Your task to perform on an android device: see tabs open on other devices in the chrome app Image 0: 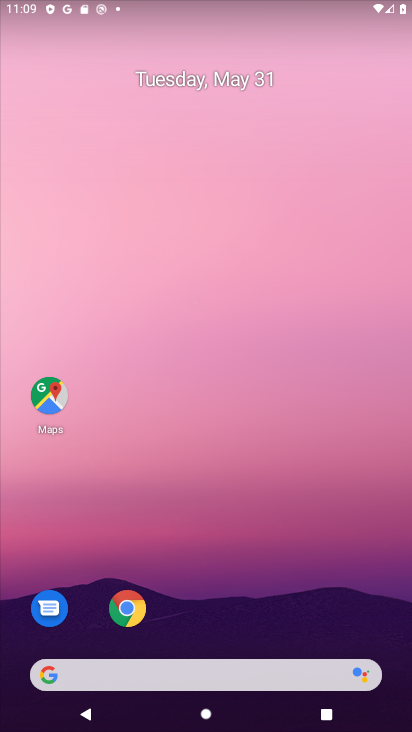
Step 0: click (125, 602)
Your task to perform on an android device: see tabs open on other devices in the chrome app Image 1: 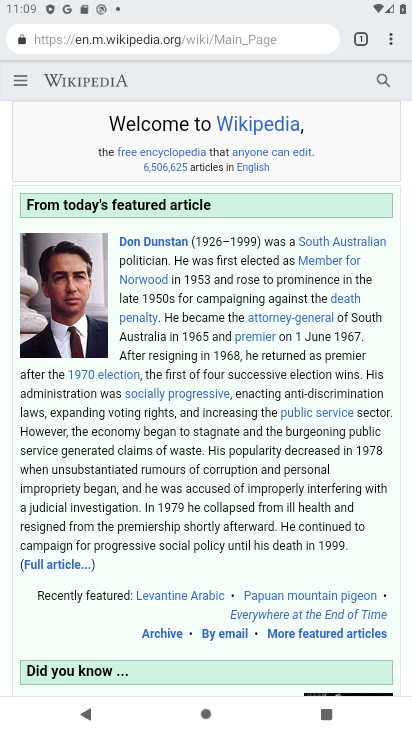
Step 1: drag from (386, 38) to (278, 471)
Your task to perform on an android device: see tabs open on other devices in the chrome app Image 2: 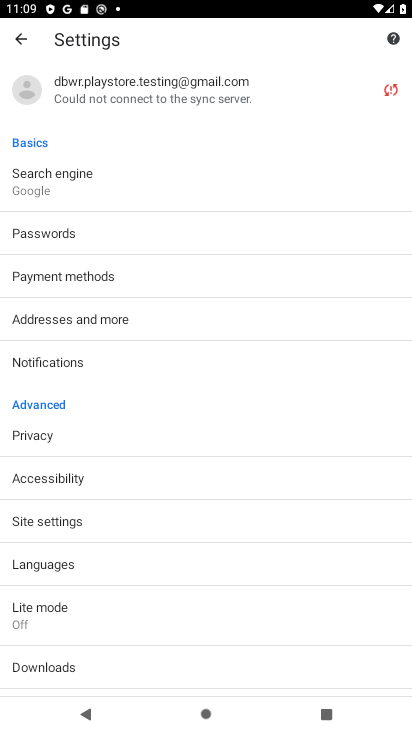
Step 2: click (22, 36)
Your task to perform on an android device: see tabs open on other devices in the chrome app Image 3: 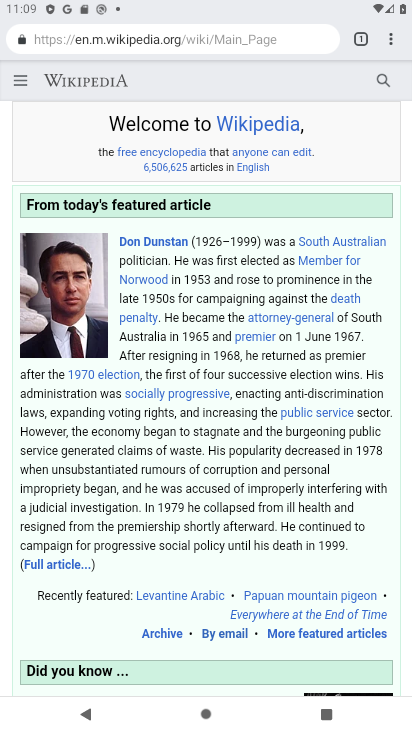
Step 3: task complete